Your task to perform on an android device: choose inbox layout in the gmail app Image 0: 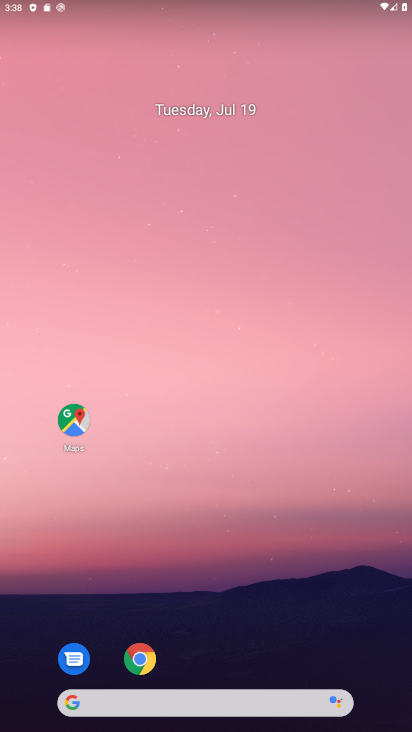
Step 0: drag from (244, 612) to (166, 27)
Your task to perform on an android device: choose inbox layout in the gmail app Image 1: 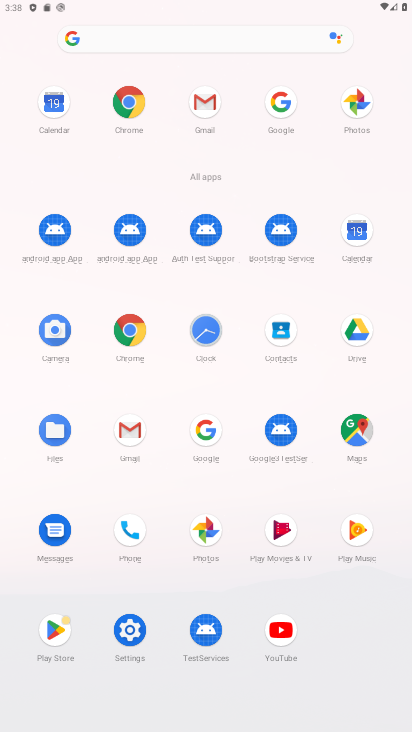
Step 1: click (203, 110)
Your task to perform on an android device: choose inbox layout in the gmail app Image 2: 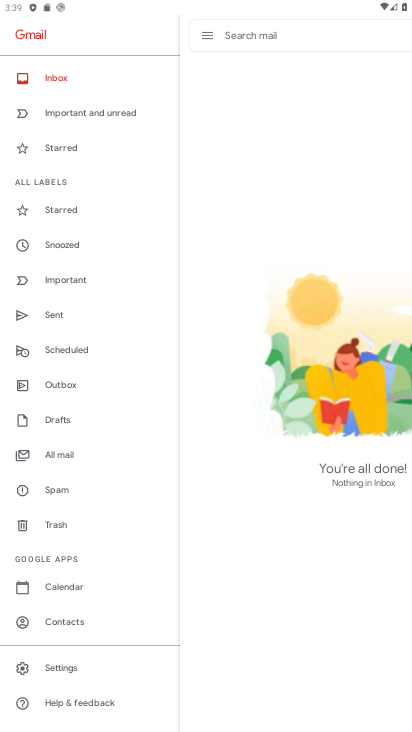
Step 2: click (74, 667)
Your task to perform on an android device: choose inbox layout in the gmail app Image 3: 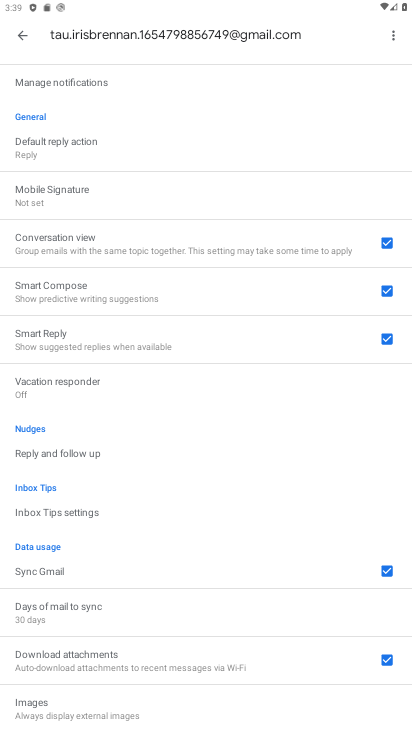
Step 3: drag from (162, 142) to (203, 512)
Your task to perform on an android device: choose inbox layout in the gmail app Image 4: 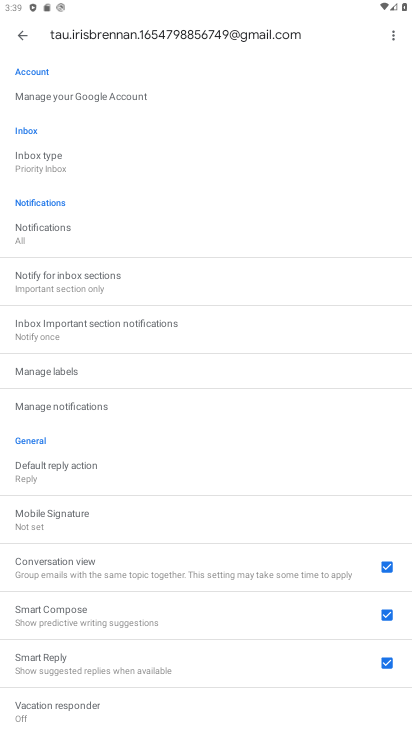
Step 4: click (43, 164)
Your task to perform on an android device: choose inbox layout in the gmail app Image 5: 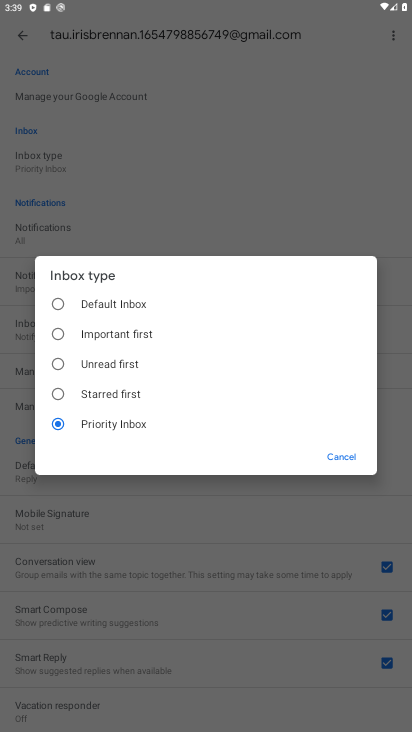
Step 5: click (104, 356)
Your task to perform on an android device: choose inbox layout in the gmail app Image 6: 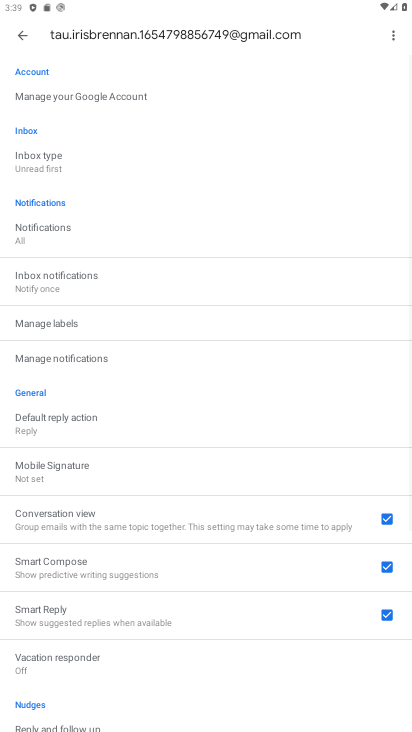
Step 6: task complete